Your task to perform on an android device: Go to ESPN.com Image 0: 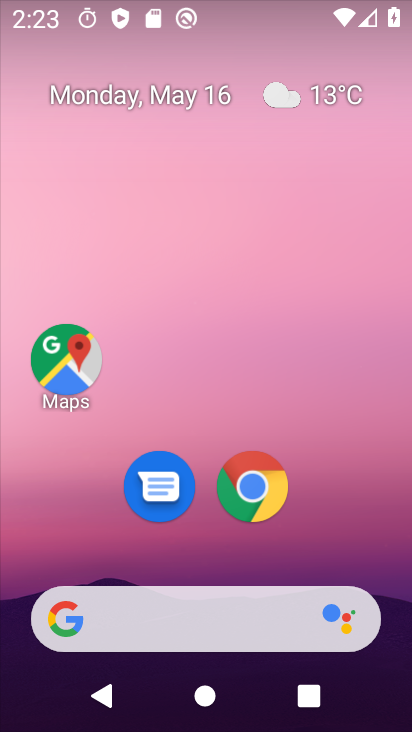
Step 0: drag from (306, 490) to (276, 92)
Your task to perform on an android device: Go to ESPN.com Image 1: 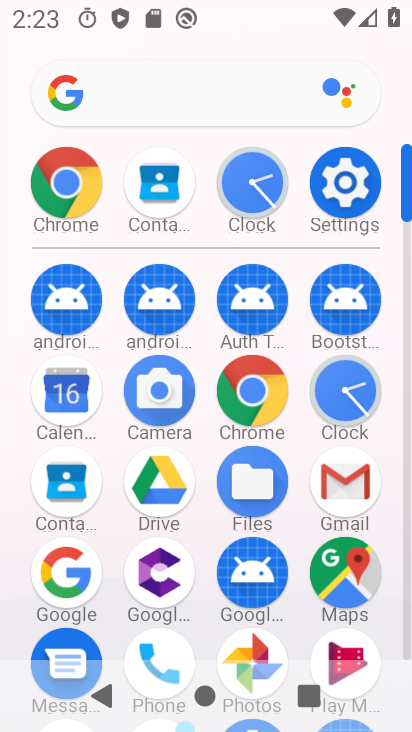
Step 1: click (72, 168)
Your task to perform on an android device: Go to ESPN.com Image 2: 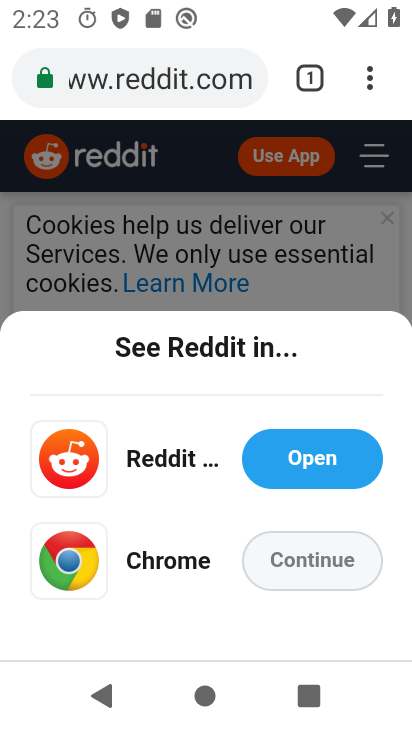
Step 2: click (120, 101)
Your task to perform on an android device: Go to ESPN.com Image 3: 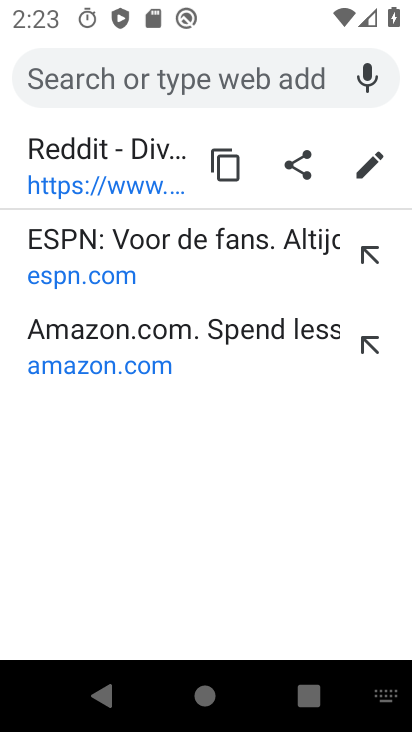
Step 3: click (194, 58)
Your task to perform on an android device: Go to ESPN.com Image 4: 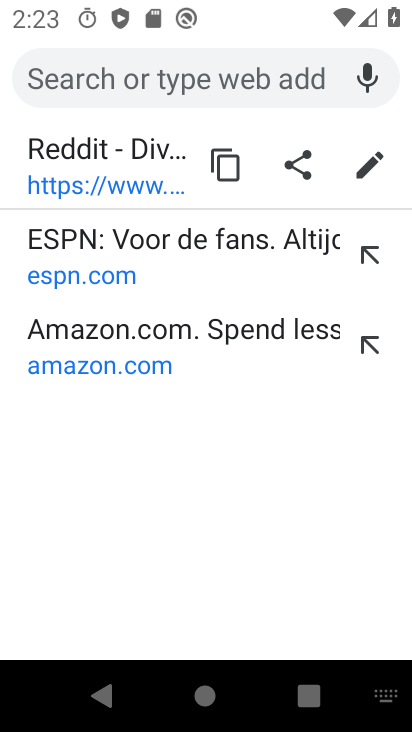
Step 4: click (151, 268)
Your task to perform on an android device: Go to ESPN.com Image 5: 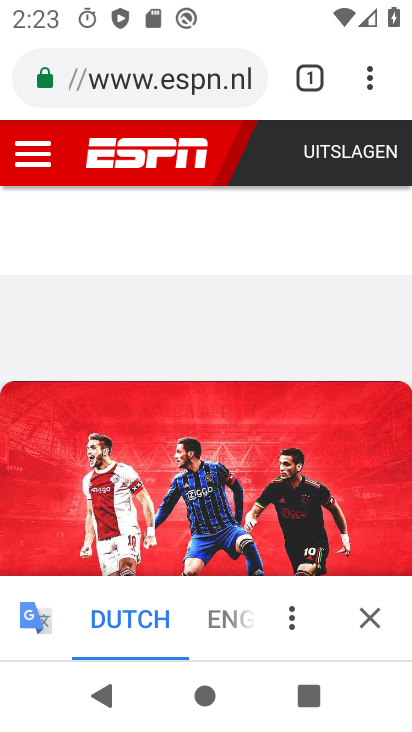
Step 5: task complete